Your task to perform on an android device: change the clock display to show seconds Image 0: 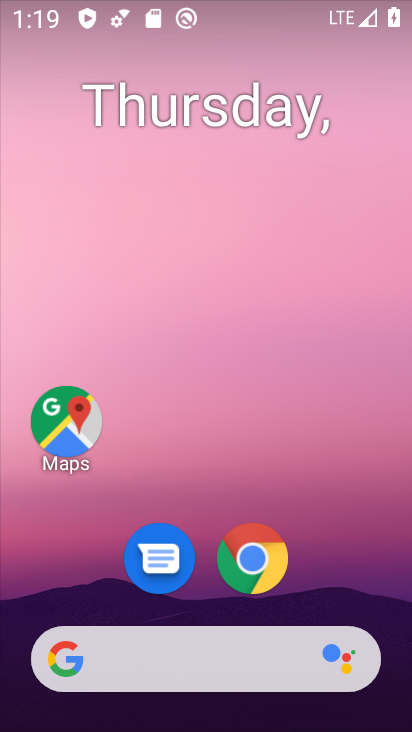
Step 0: drag from (372, 542) to (377, 0)
Your task to perform on an android device: change the clock display to show seconds Image 1: 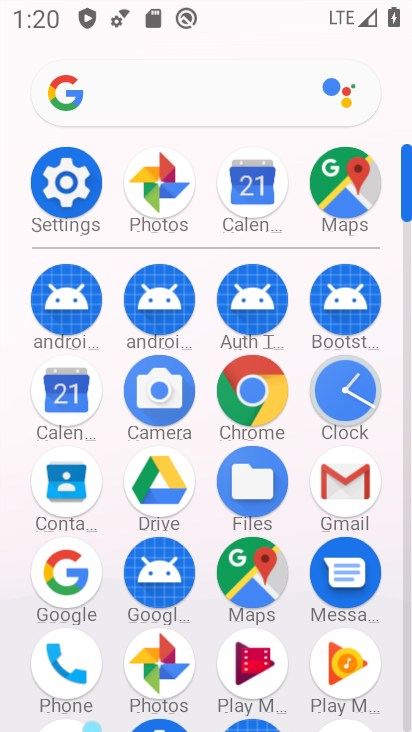
Step 1: click (320, 393)
Your task to perform on an android device: change the clock display to show seconds Image 2: 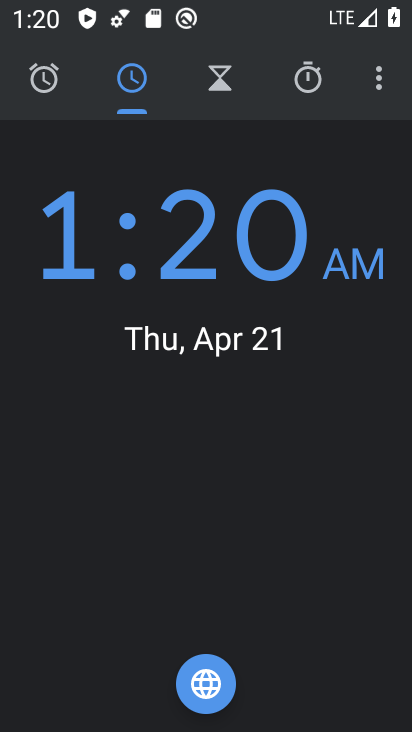
Step 2: click (389, 92)
Your task to perform on an android device: change the clock display to show seconds Image 3: 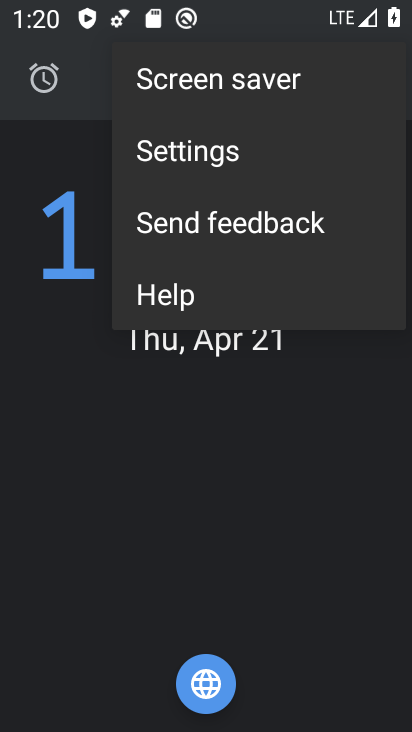
Step 3: click (278, 150)
Your task to perform on an android device: change the clock display to show seconds Image 4: 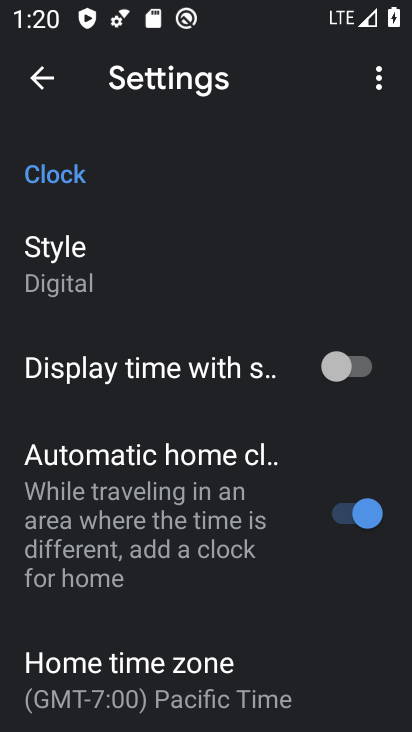
Step 4: click (187, 375)
Your task to perform on an android device: change the clock display to show seconds Image 5: 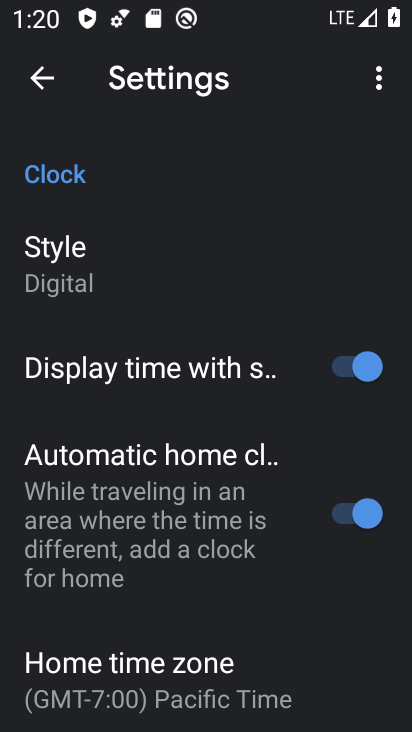
Step 5: task complete